Your task to perform on an android device: turn on sleep mode Image 0: 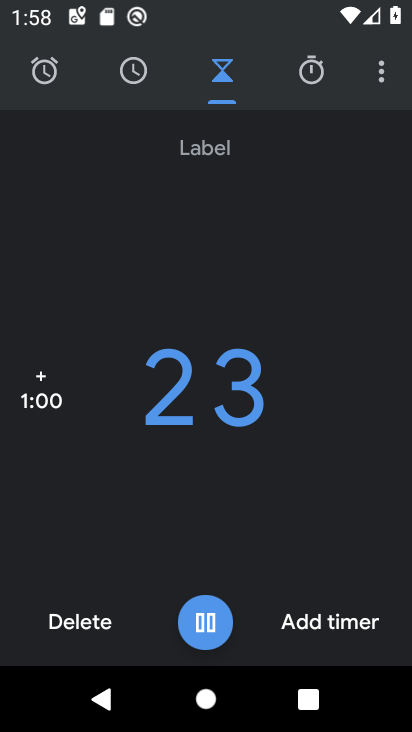
Step 0: press home button
Your task to perform on an android device: turn on sleep mode Image 1: 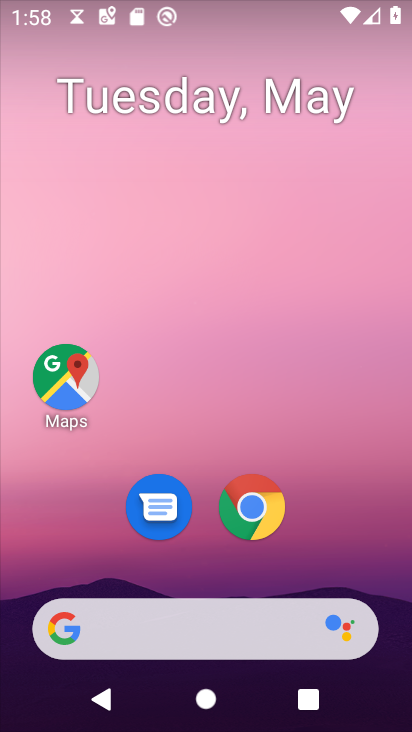
Step 1: drag from (204, 554) to (204, 187)
Your task to perform on an android device: turn on sleep mode Image 2: 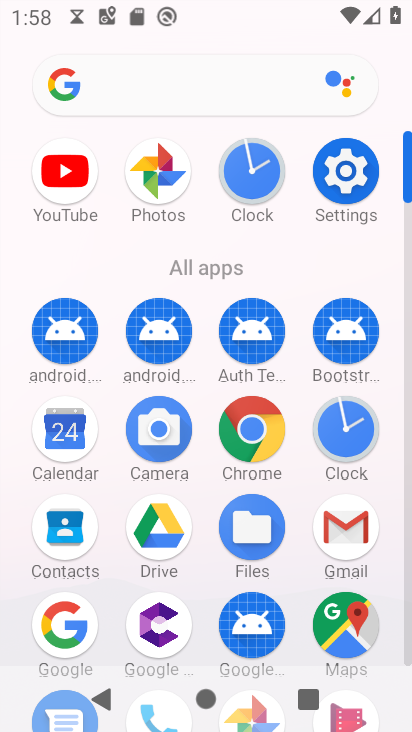
Step 2: click (330, 198)
Your task to perform on an android device: turn on sleep mode Image 3: 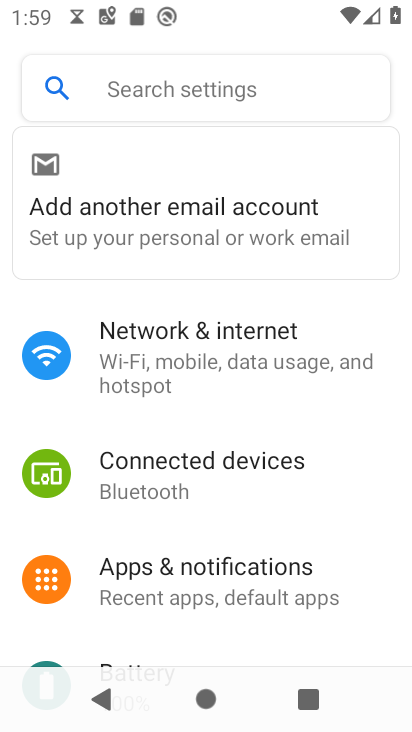
Step 3: drag from (254, 524) to (271, 290)
Your task to perform on an android device: turn on sleep mode Image 4: 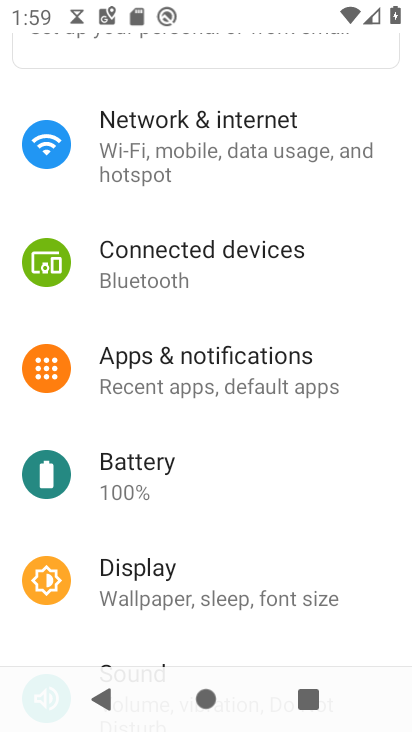
Step 4: click (212, 551)
Your task to perform on an android device: turn on sleep mode Image 5: 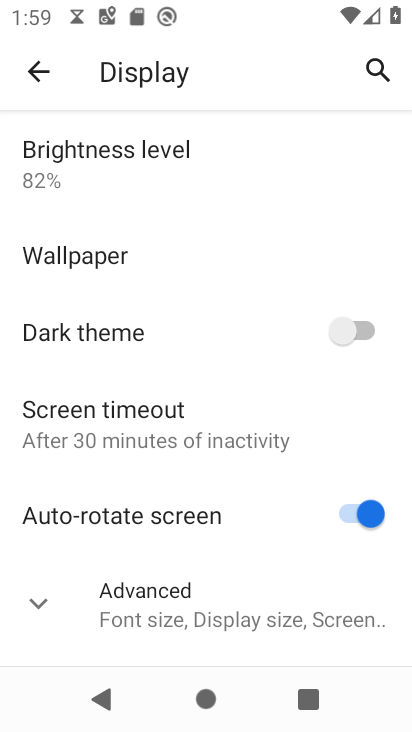
Step 5: click (190, 428)
Your task to perform on an android device: turn on sleep mode Image 6: 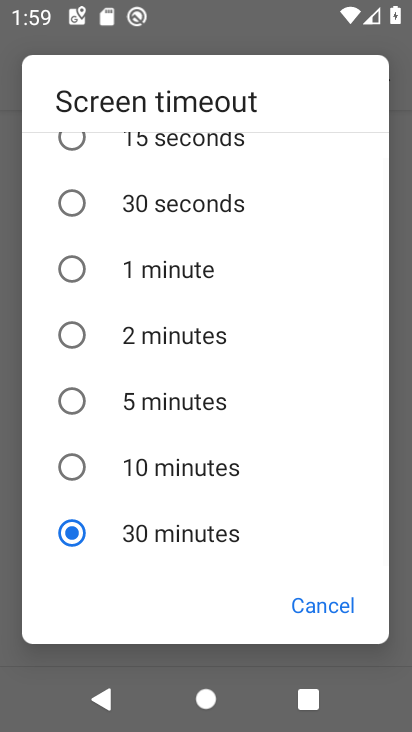
Step 6: click (189, 331)
Your task to perform on an android device: turn on sleep mode Image 7: 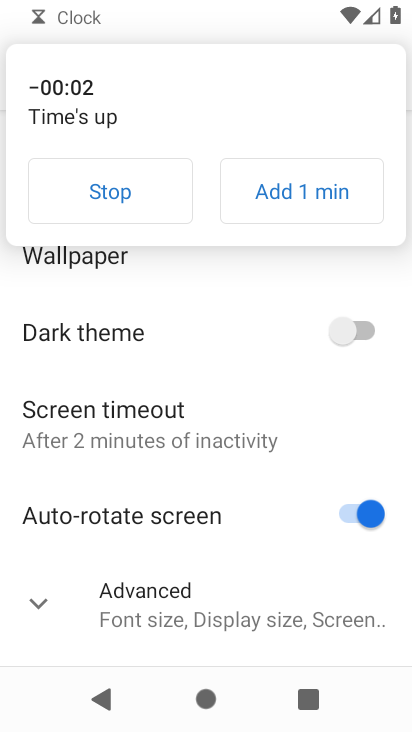
Step 7: task complete